Your task to perform on an android device: turn off location Image 0: 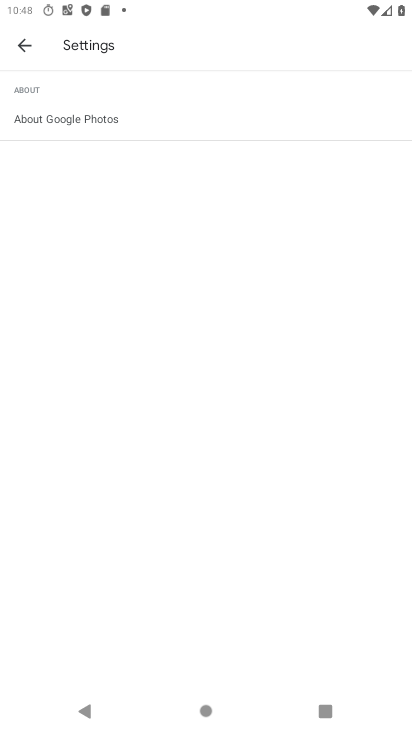
Step 0: press home button
Your task to perform on an android device: turn off location Image 1: 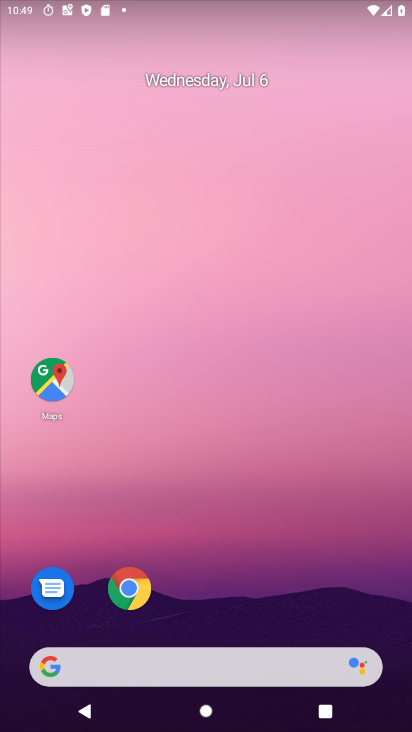
Step 1: drag from (239, 707) to (239, 458)
Your task to perform on an android device: turn off location Image 2: 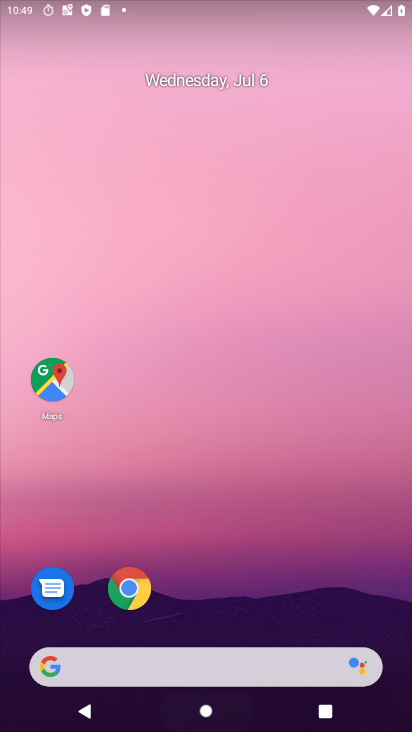
Step 2: click (242, 168)
Your task to perform on an android device: turn off location Image 3: 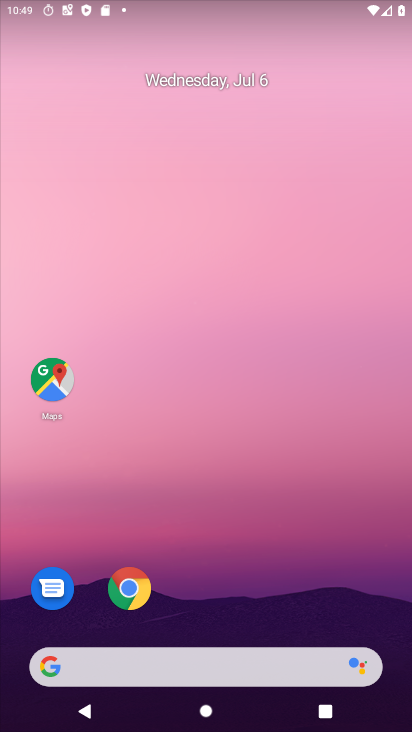
Step 3: drag from (245, 711) to (243, 537)
Your task to perform on an android device: turn off location Image 4: 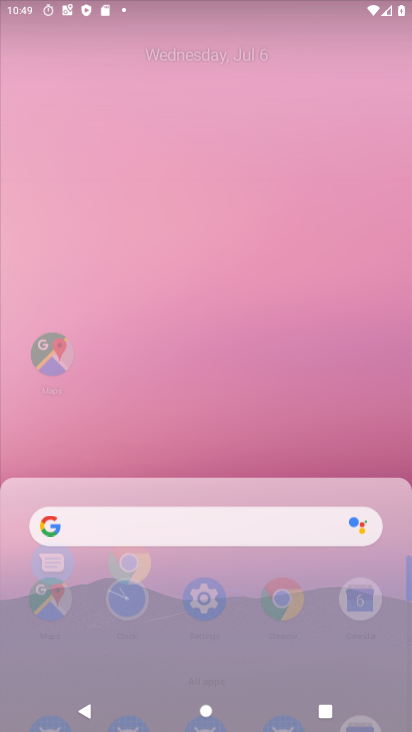
Step 4: click (204, 126)
Your task to perform on an android device: turn off location Image 5: 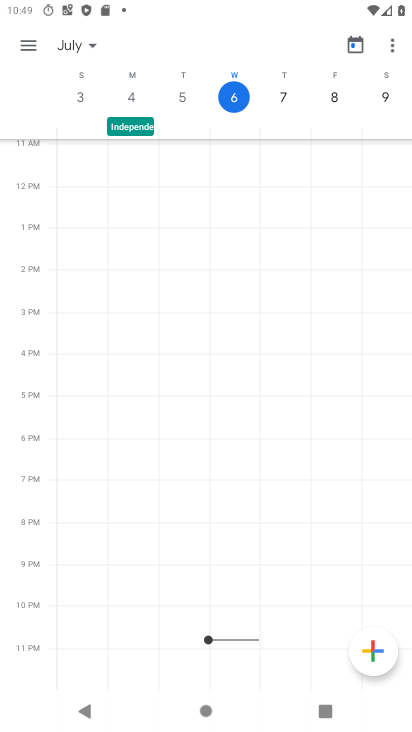
Step 5: press home button
Your task to perform on an android device: turn off location Image 6: 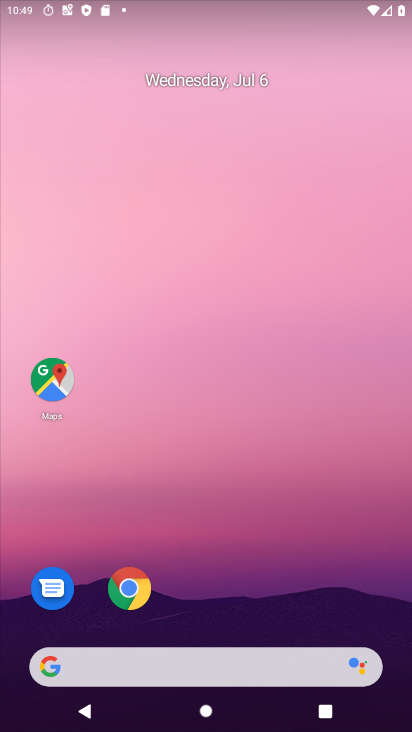
Step 6: drag from (244, 711) to (197, 70)
Your task to perform on an android device: turn off location Image 7: 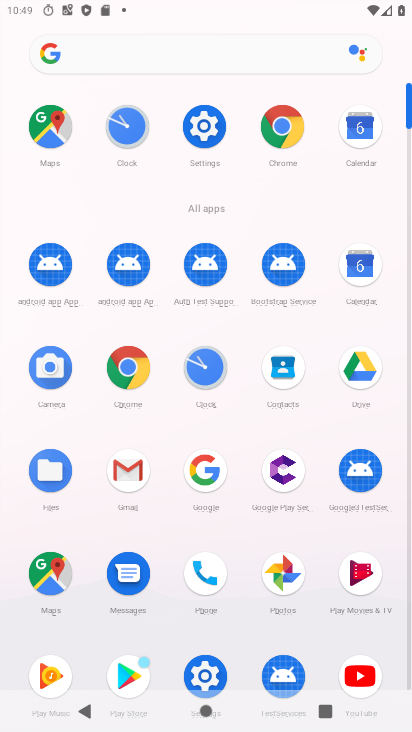
Step 7: click (191, 125)
Your task to perform on an android device: turn off location Image 8: 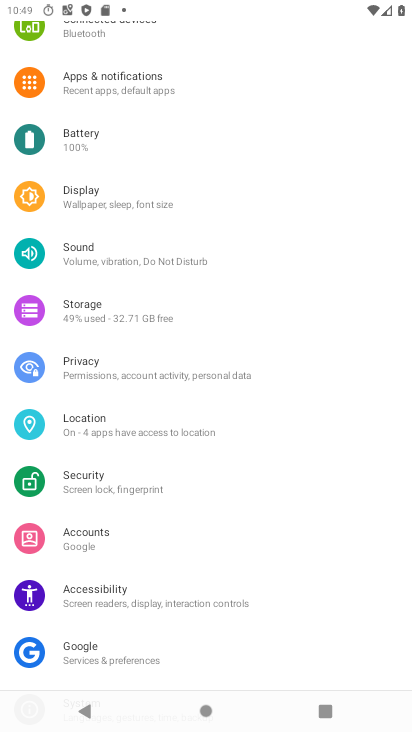
Step 8: click (90, 421)
Your task to perform on an android device: turn off location Image 9: 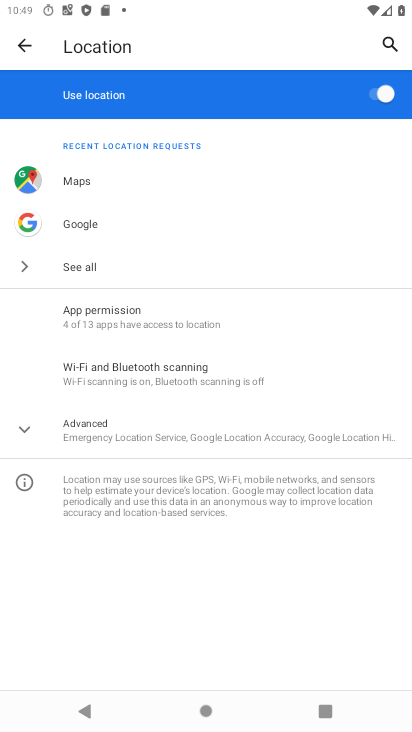
Step 9: click (380, 91)
Your task to perform on an android device: turn off location Image 10: 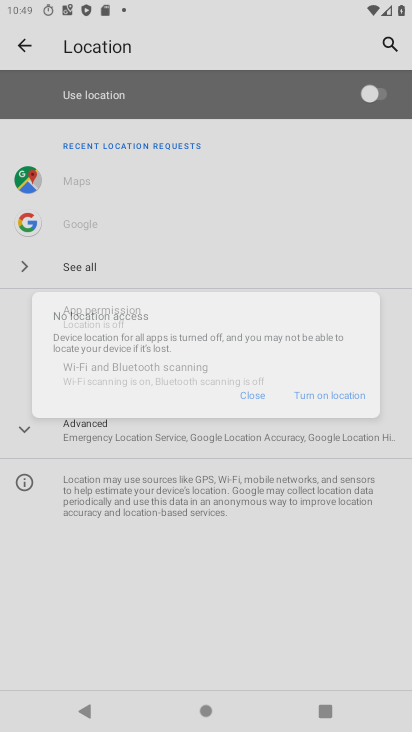
Step 10: task complete